Your task to perform on an android device: toggle show notifications on the lock screen Image 0: 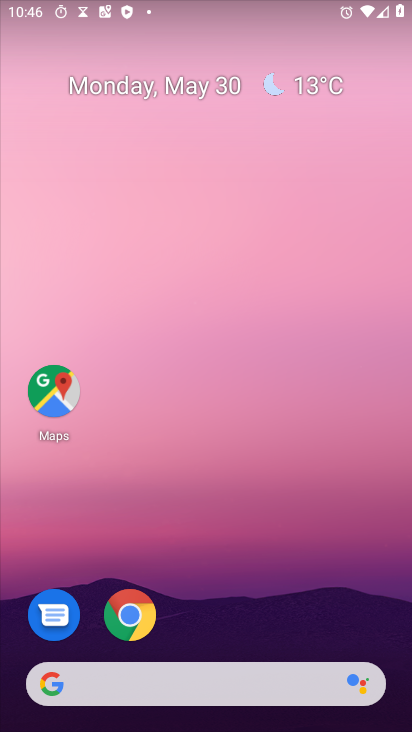
Step 0: drag from (292, 548) to (291, 14)
Your task to perform on an android device: toggle show notifications on the lock screen Image 1: 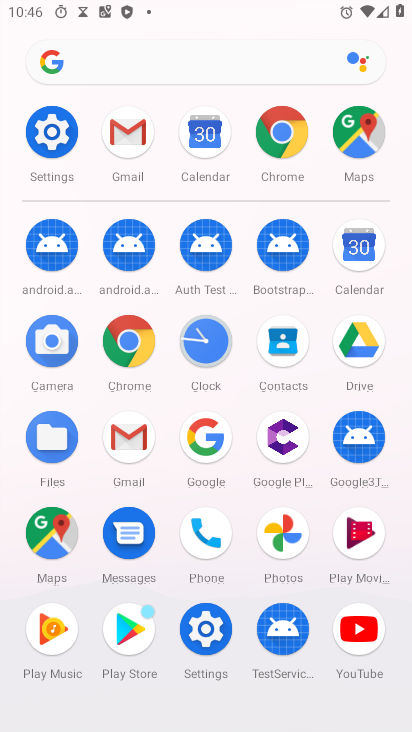
Step 1: click (34, 150)
Your task to perform on an android device: toggle show notifications on the lock screen Image 2: 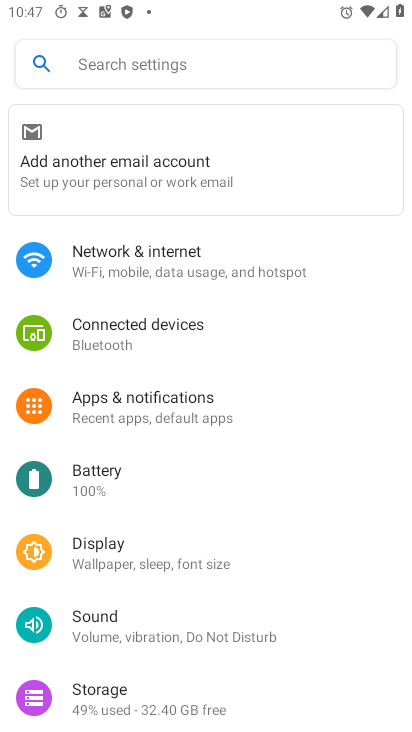
Step 2: click (156, 413)
Your task to perform on an android device: toggle show notifications on the lock screen Image 3: 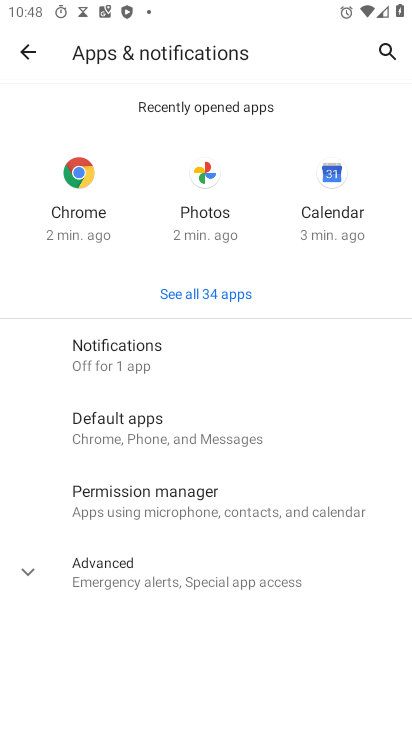
Step 3: click (91, 366)
Your task to perform on an android device: toggle show notifications on the lock screen Image 4: 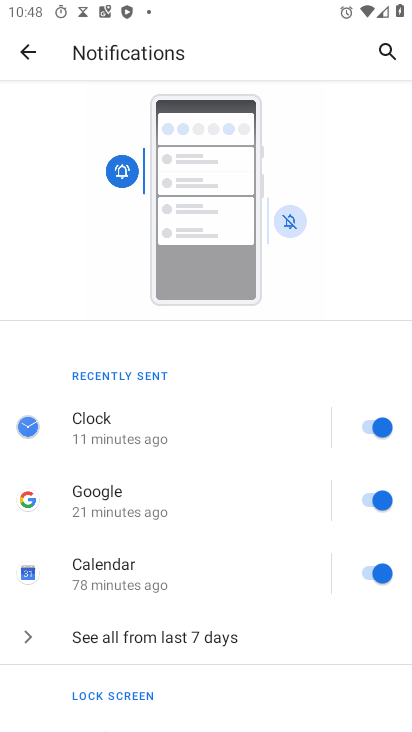
Step 4: drag from (204, 658) to (214, 350)
Your task to perform on an android device: toggle show notifications on the lock screen Image 5: 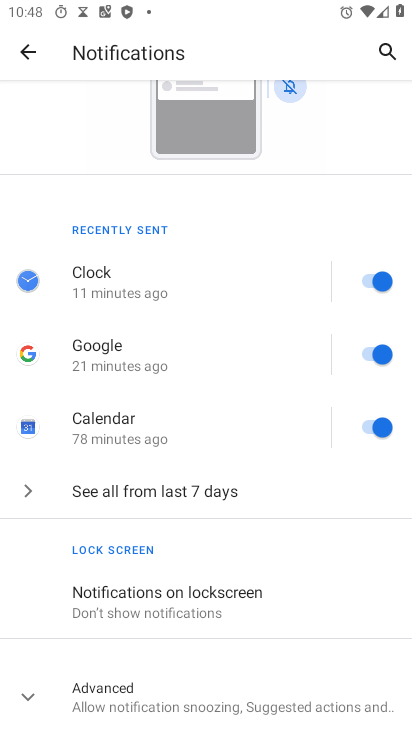
Step 5: click (128, 598)
Your task to perform on an android device: toggle show notifications on the lock screen Image 6: 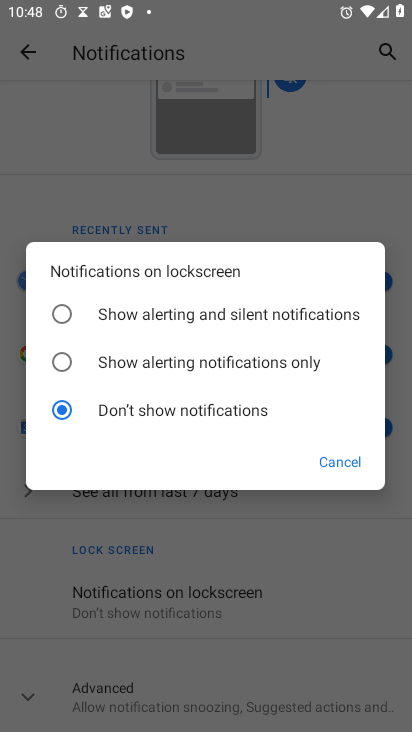
Step 6: click (72, 315)
Your task to perform on an android device: toggle show notifications on the lock screen Image 7: 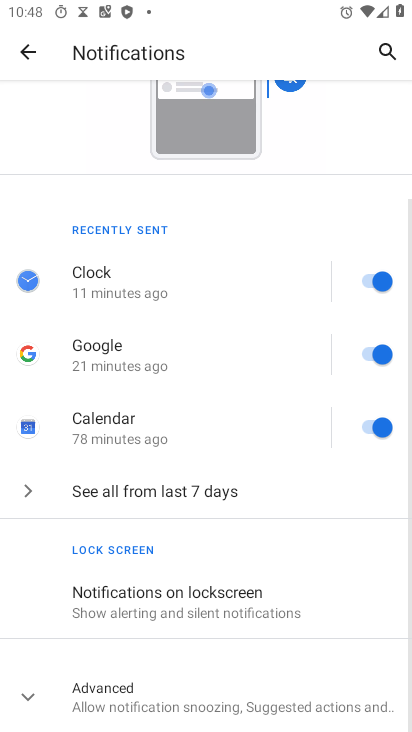
Step 7: task complete